Your task to perform on an android device: toggle improve location accuracy Image 0: 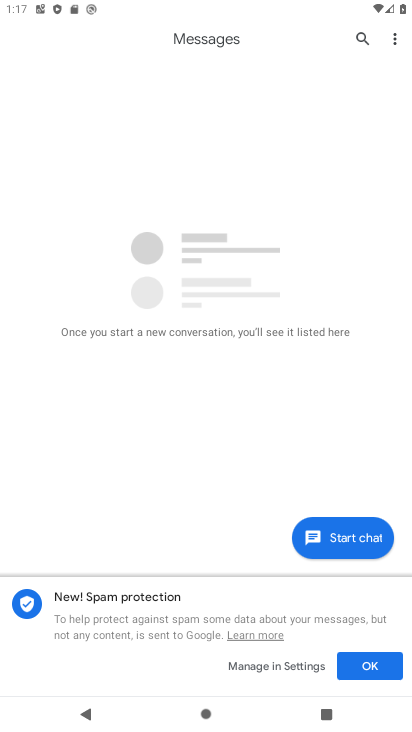
Step 0: press home button
Your task to perform on an android device: toggle improve location accuracy Image 1: 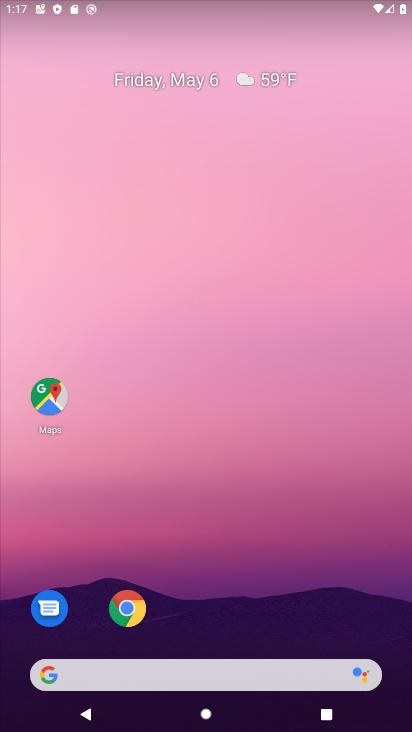
Step 1: drag from (232, 618) to (293, 0)
Your task to perform on an android device: toggle improve location accuracy Image 2: 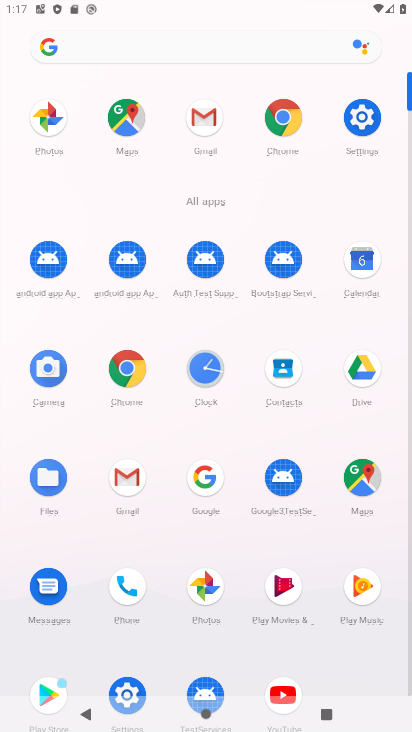
Step 2: click (356, 127)
Your task to perform on an android device: toggle improve location accuracy Image 3: 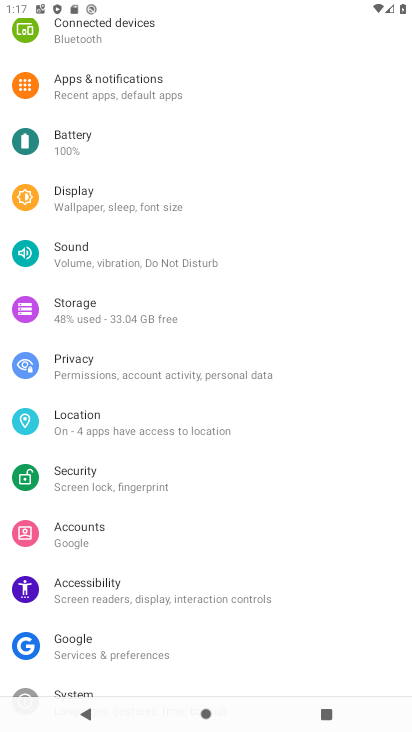
Step 3: drag from (152, 632) to (190, 292)
Your task to perform on an android device: toggle improve location accuracy Image 4: 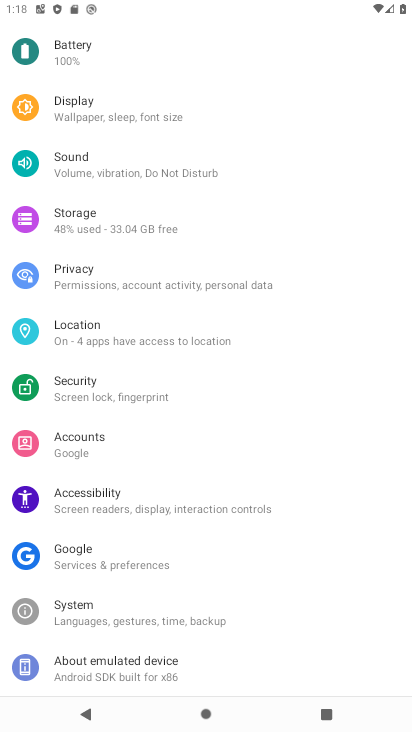
Step 4: click (193, 340)
Your task to perform on an android device: toggle improve location accuracy Image 5: 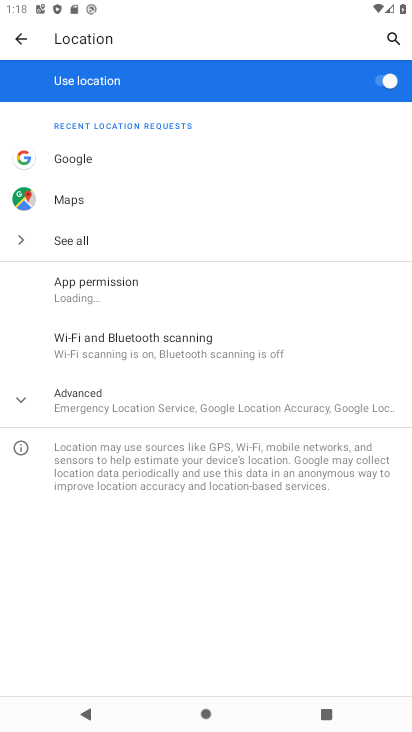
Step 5: click (175, 402)
Your task to perform on an android device: toggle improve location accuracy Image 6: 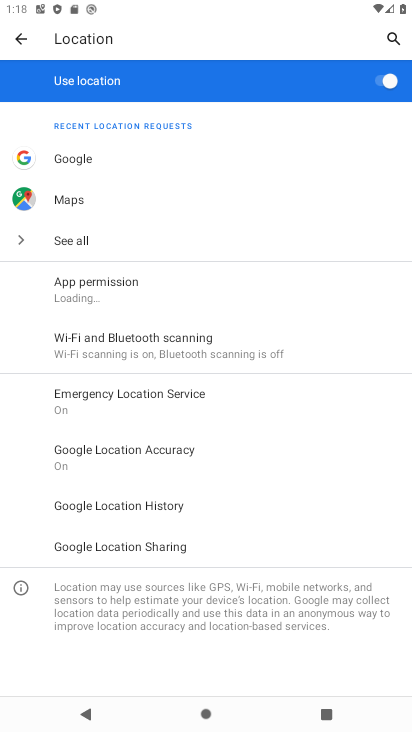
Step 6: click (150, 456)
Your task to perform on an android device: toggle improve location accuracy Image 7: 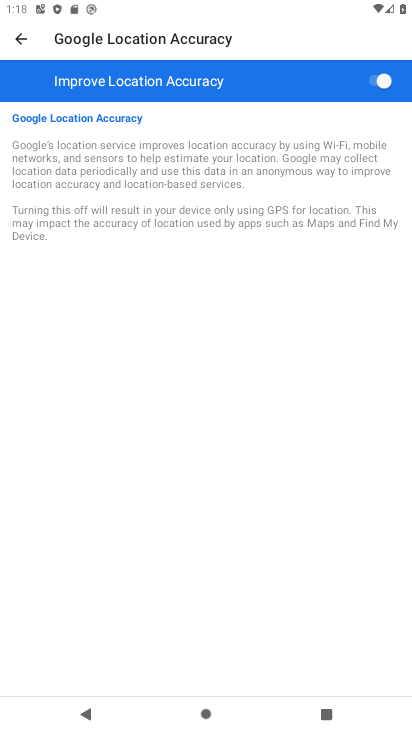
Step 7: click (373, 86)
Your task to perform on an android device: toggle improve location accuracy Image 8: 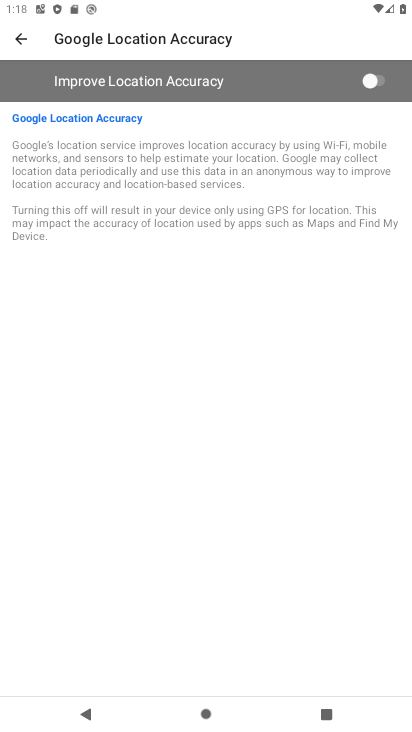
Step 8: task complete